Your task to perform on an android device: Search for sushi restaurants on Maps Image 0: 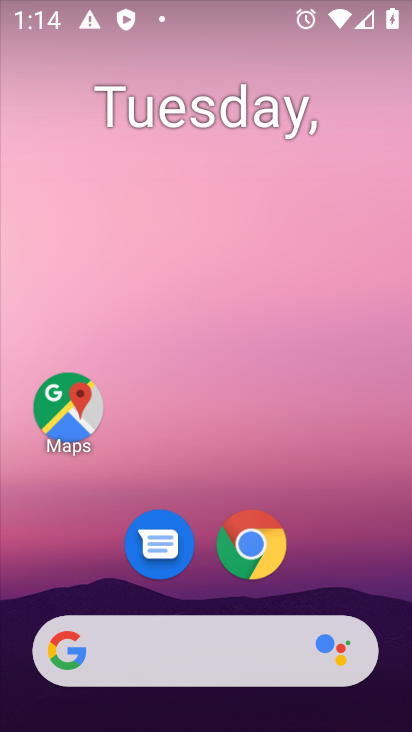
Step 0: drag from (326, 546) to (327, 24)
Your task to perform on an android device: Search for sushi restaurants on Maps Image 1: 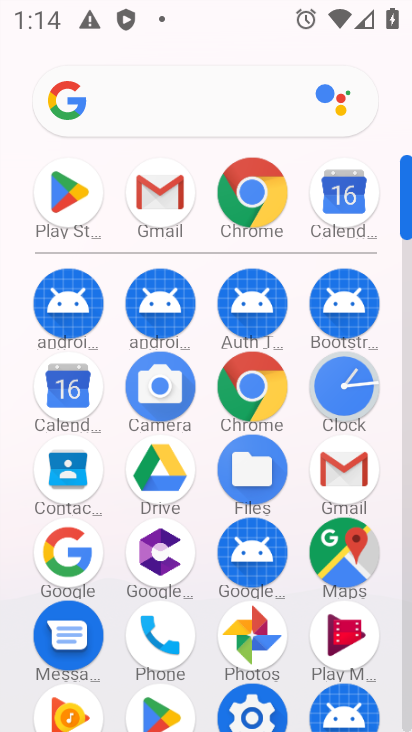
Step 1: click (345, 544)
Your task to perform on an android device: Search for sushi restaurants on Maps Image 2: 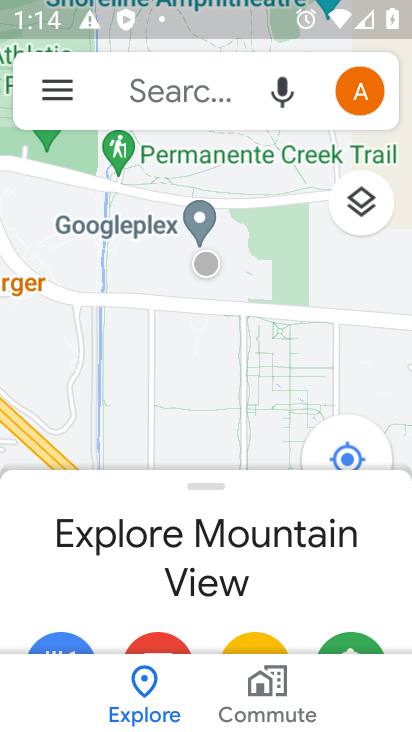
Step 2: click (193, 98)
Your task to perform on an android device: Search for sushi restaurants on Maps Image 3: 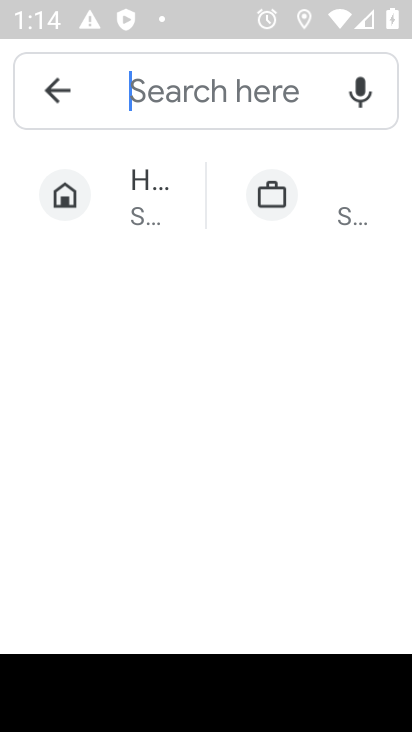
Step 3: type "sushi restaurants"
Your task to perform on an android device: Search for sushi restaurants on Maps Image 4: 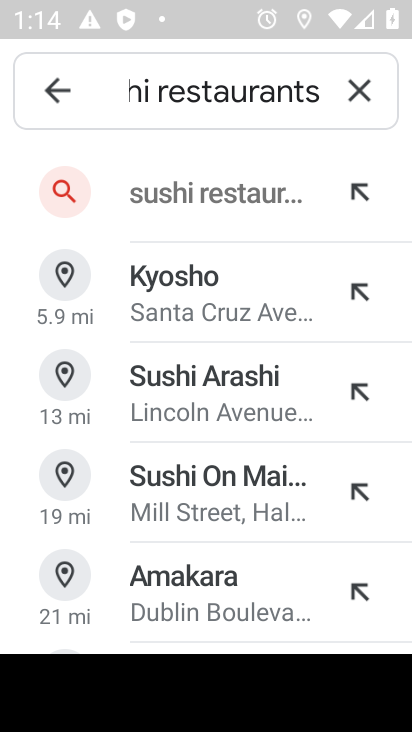
Step 4: press enter
Your task to perform on an android device: Search for sushi restaurants on Maps Image 5: 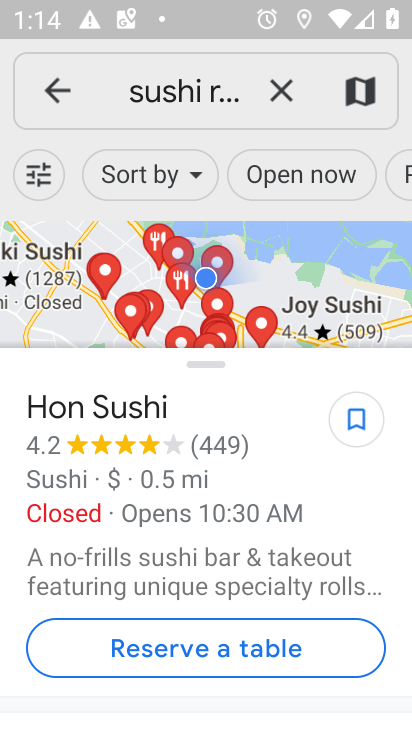
Step 5: task complete